Your task to perform on an android device: Open sound settings Image 0: 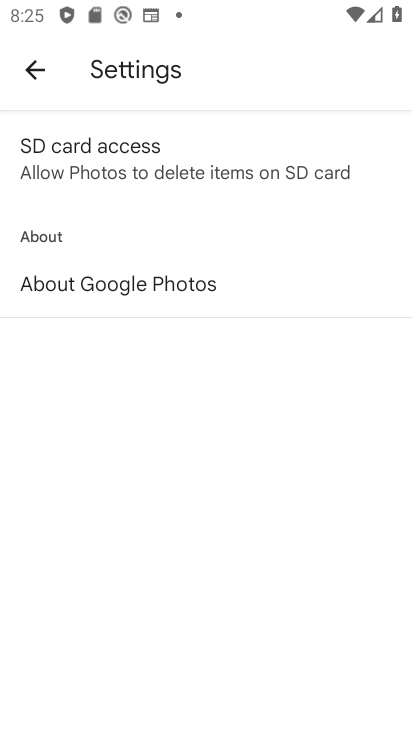
Step 0: press home button
Your task to perform on an android device: Open sound settings Image 1: 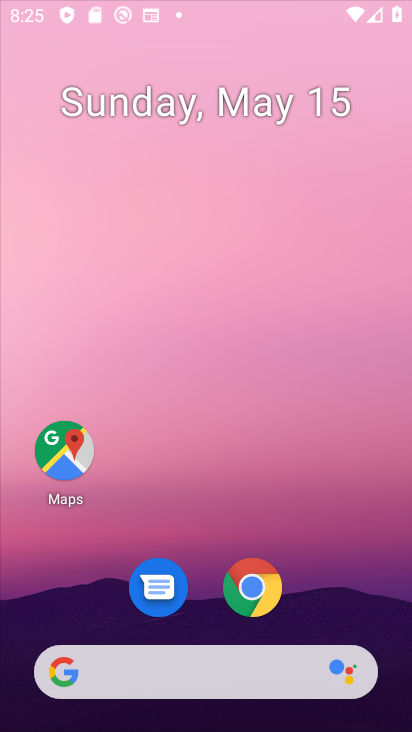
Step 1: drag from (374, 634) to (283, 100)
Your task to perform on an android device: Open sound settings Image 2: 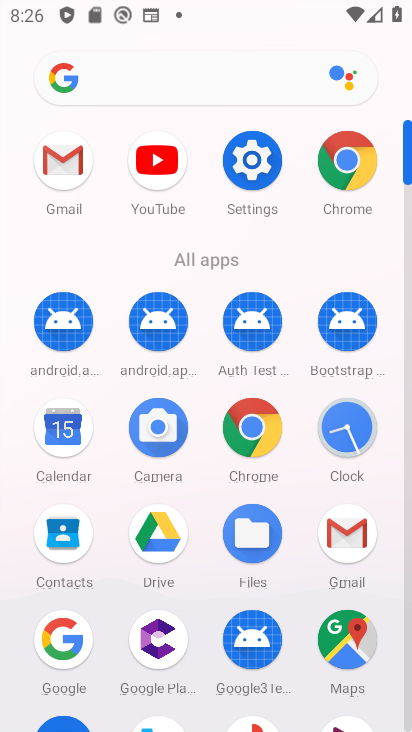
Step 2: click (237, 178)
Your task to perform on an android device: Open sound settings Image 3: 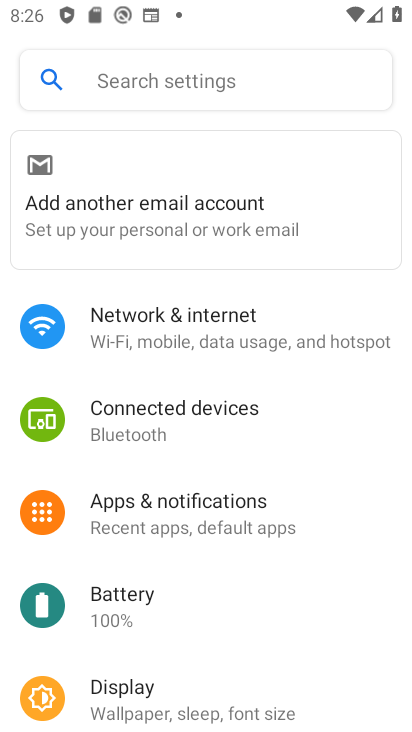
Step 3: drag from (180, 645) to (168, 220)
Your task to perform on an android device: Open sound settings Image 4: 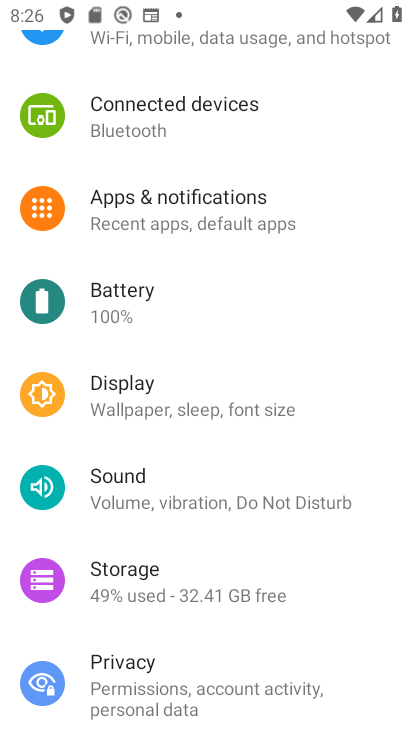
Step 4: click (163, 521)
Your task to perform on an android device: Open sound settings Image 5: 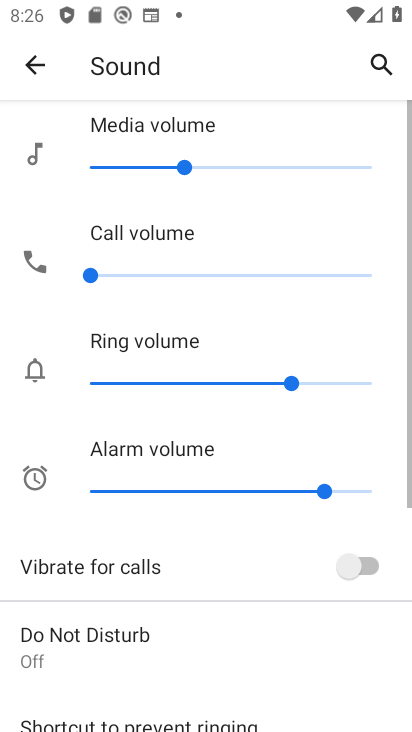
Step 5: task complete